Your task to perform on an android device: Open the calendar app, open the side menu, and click the "Day" option Image 0: 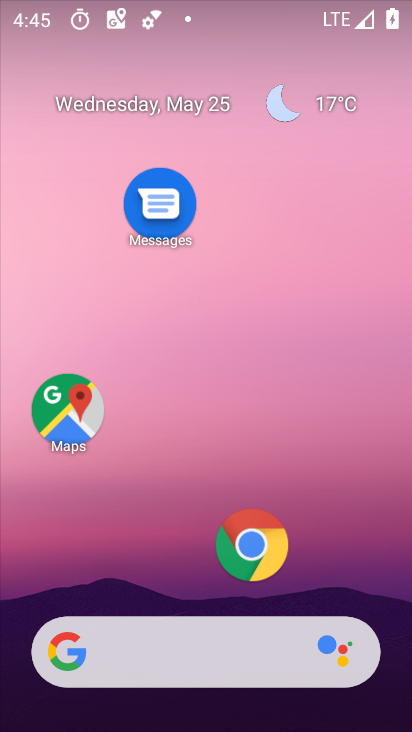
Step 0: click (189, 104)
Your task to perform on an android device: Open the calendar app, open the side menu, and click the "Day" option Image 1: 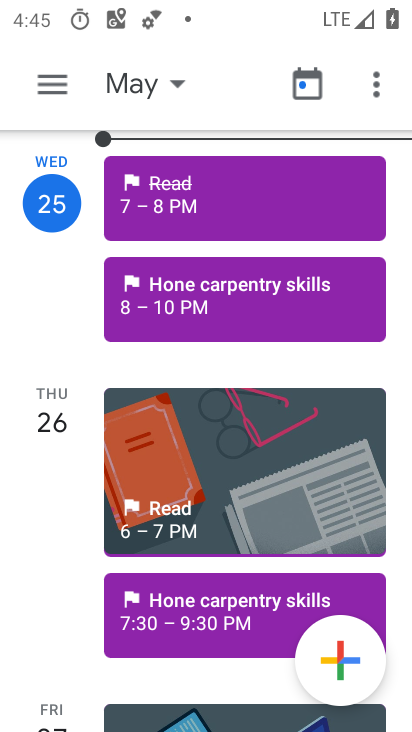
Step 1: click (53, 93)
Your task to perform on an android device: Open the calendar app, open the side menu, and click the "Day" option Image 2: 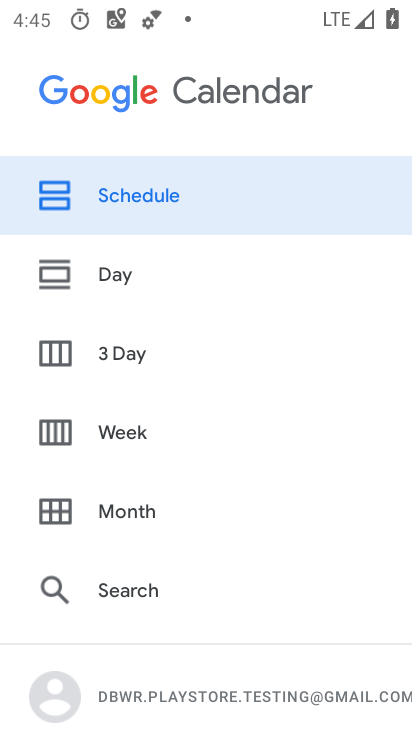
Step 2: click (126, 265)
Your task to perform on an android device: Open the calendar app, open the side menu, and click the "Day" option Image 3: 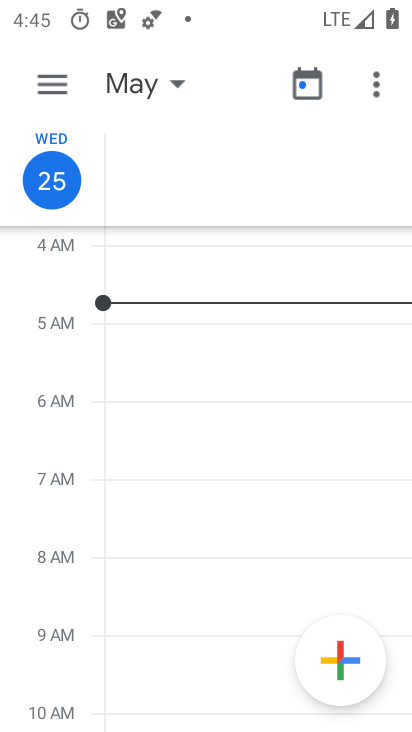
Step 3: task complete